Your task to perform on an android device: uninstall "Instagram" Image 0: 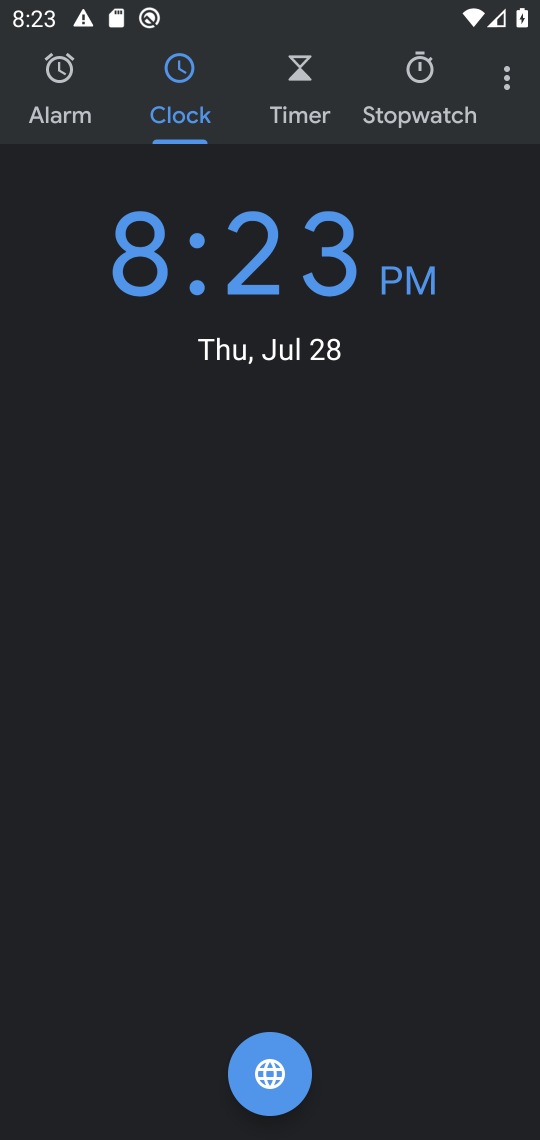
Step 0: press home button
Your task to perform on an android device: uninstall "Instagram" Image 1: 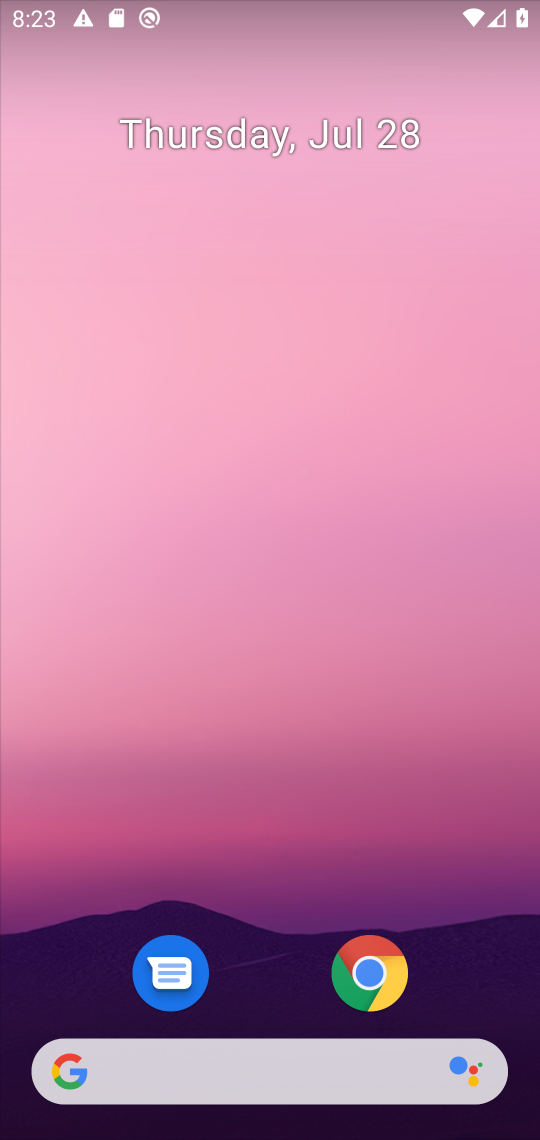
Step 1: drag from (280, 847) to (289, 49)
Your task to perform on an android device: uninstall "Instagram" Image 2: 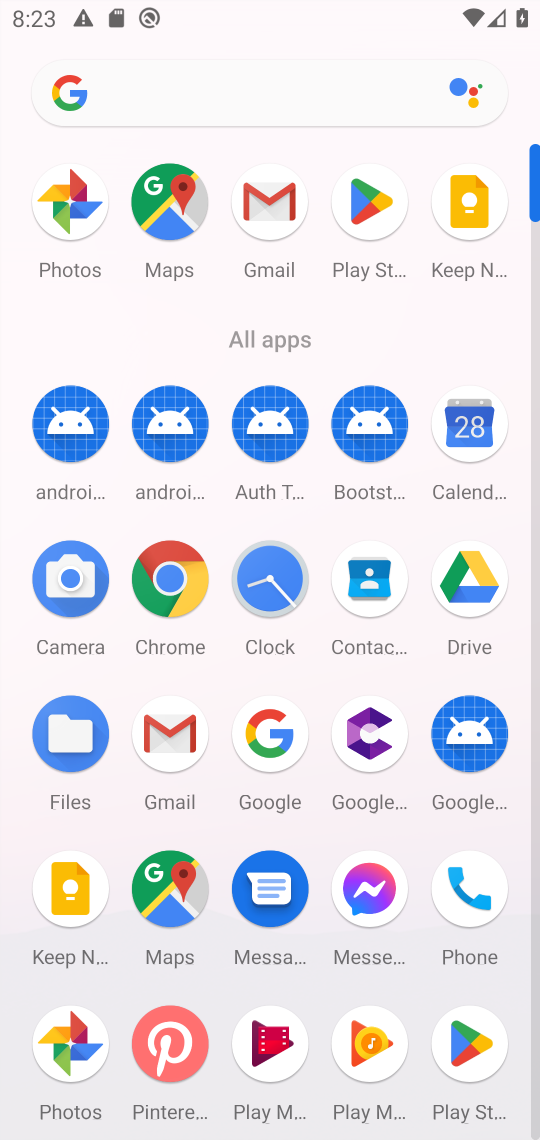
Step 2: drag from (236, 697) to (281, 267)
Your task to perform on an android device: uninstall "Instagram" Image 3: 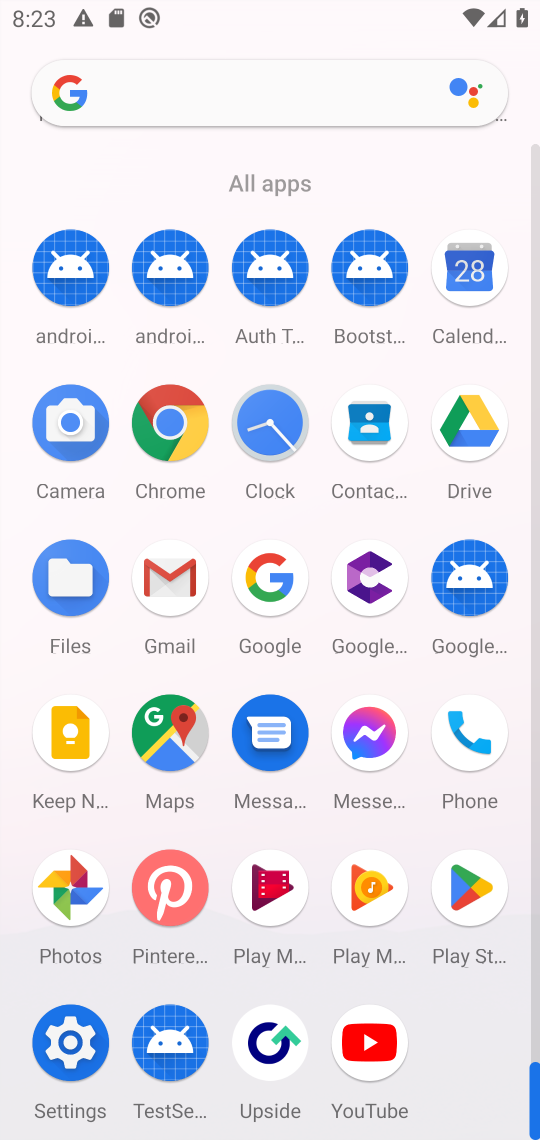
Step 3: click (497, 912)
Your task to perform on an android device: uninstall "Instagram" Image 4: 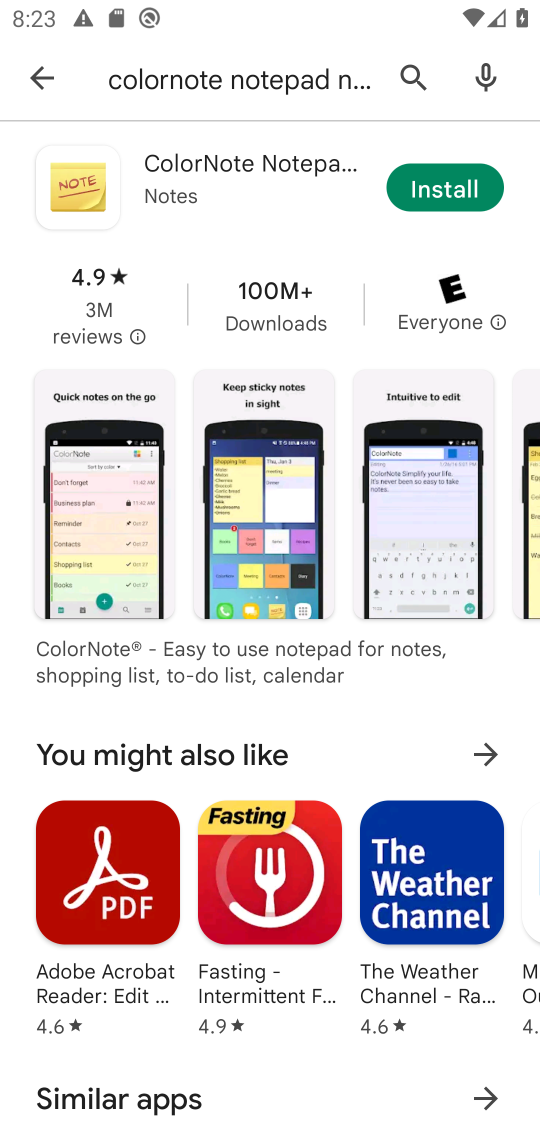
Step 4: click (59, 84)
Your task to perform on an android device: uninstall "Instagram" Image 5: 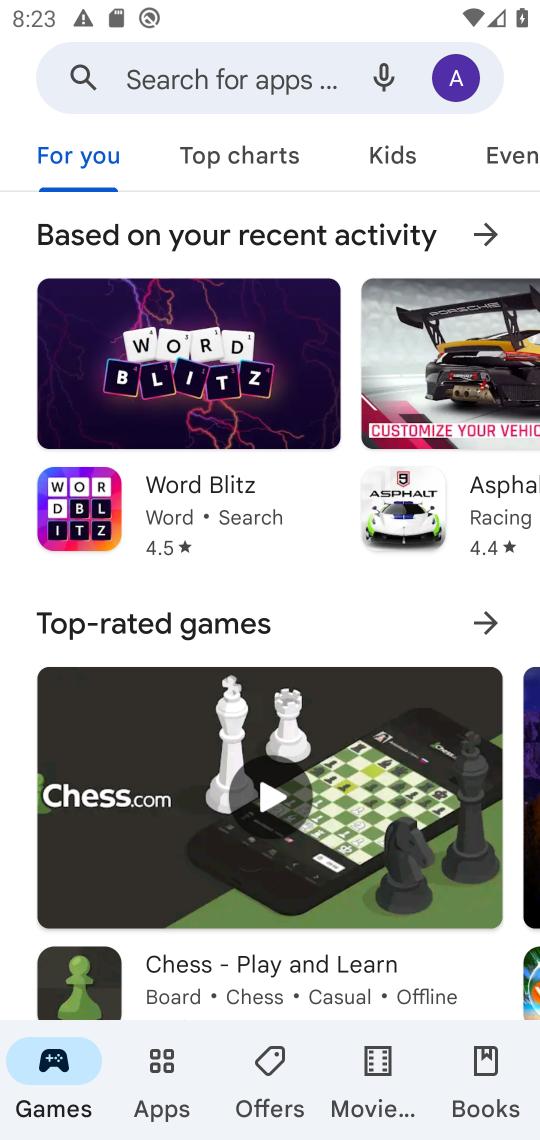
Step 5: click (217, 81)
Your task to perform on an android device: uninstall "Instagram" Image 6: 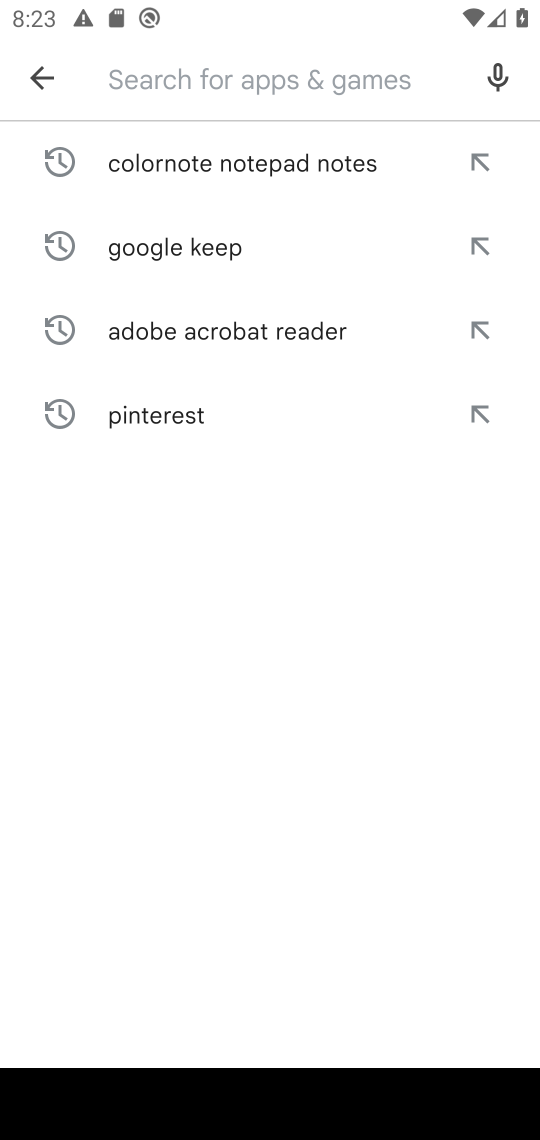
Step 6: type "Instagram"
Your task to perform on an android device: uninstall "Instagram" Image 7: 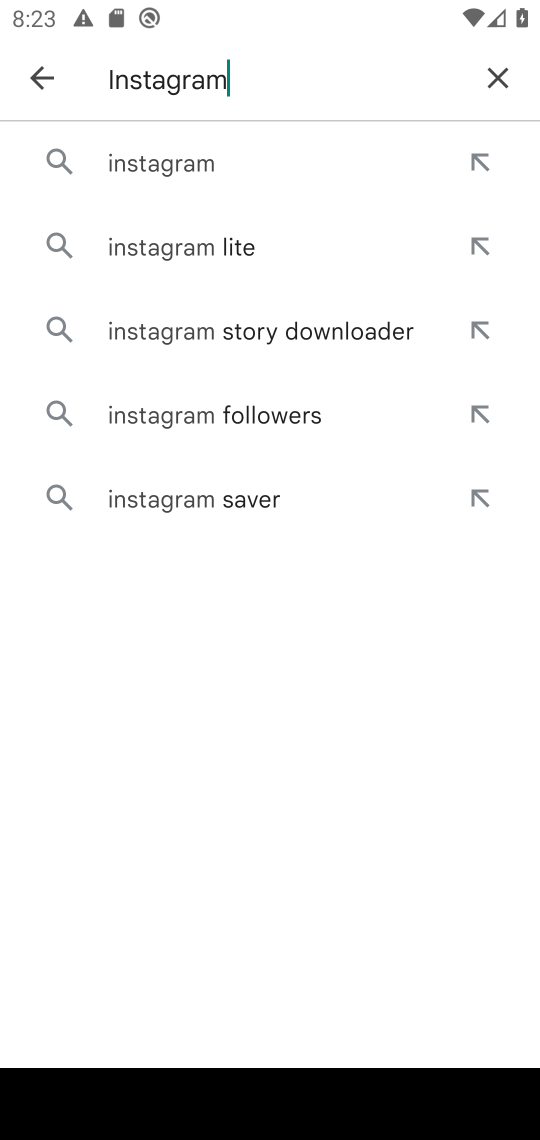
Step 7: click (230, 159)
Your task to perform on an android device: uninstall "Instagram" Image 8: 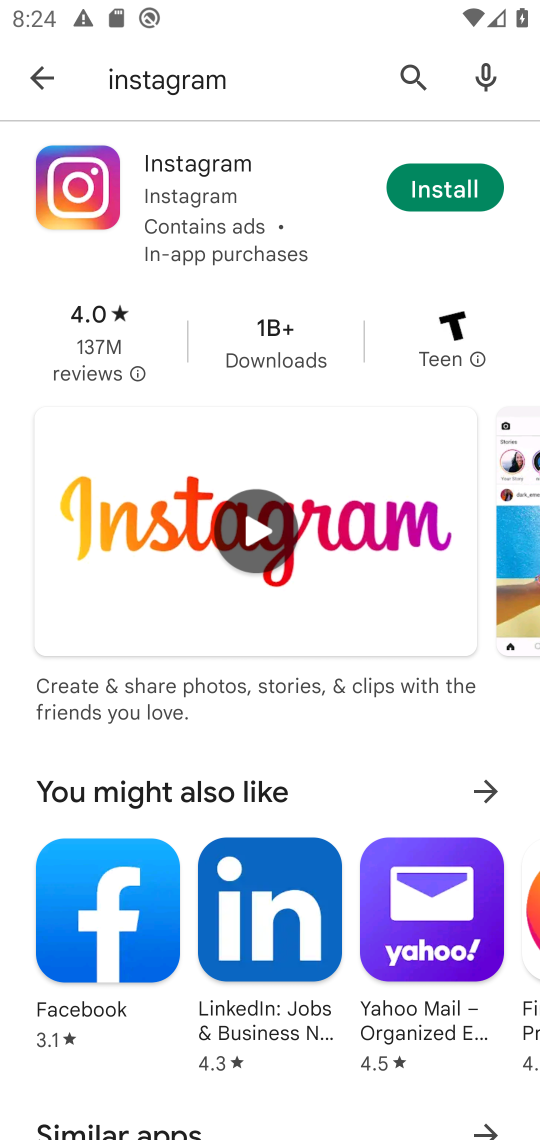
Step 8: task complete